Your task to perform on an android device: Open calendar and show me the fourth week of next month Image 0: 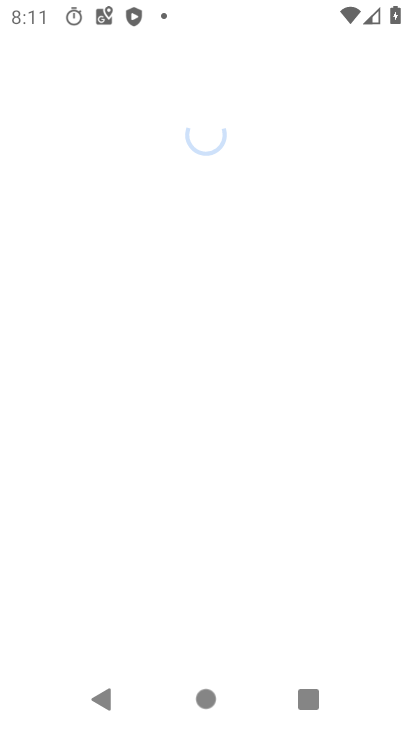
Step 0: drag from (217, 542) to (156, 205)
Your task to perform on an android device: Open calendar and show me the fourth week of next month Image 1: 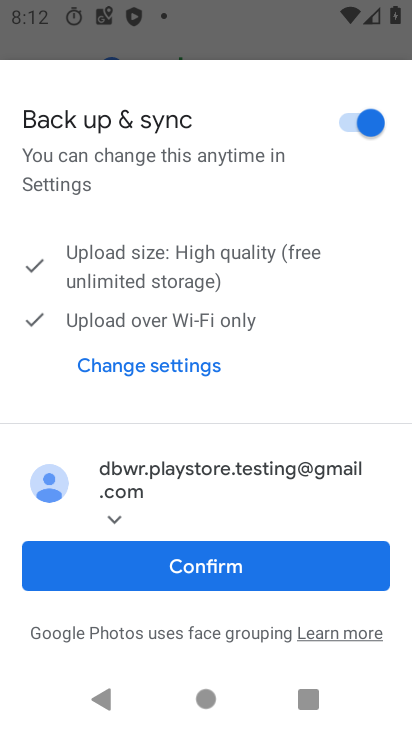
Step 1: click (236, 564)
Your task to perform on an android device: Open calendar and show me the fourth week of next month Image 2: 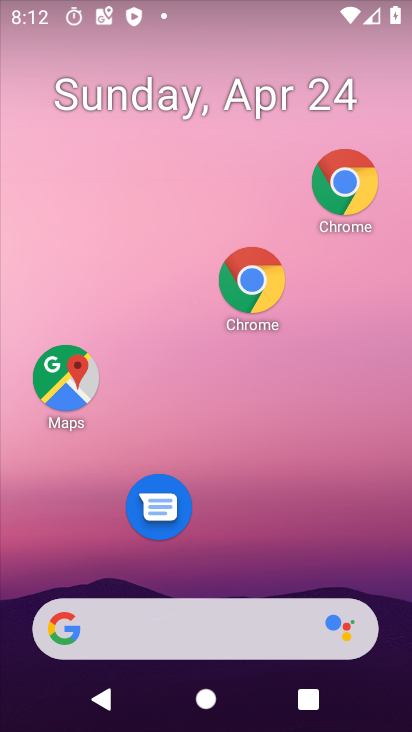
Step 2: press home button
Your task to perform on an android device: Open calendar and show me the fourth week of next month Image 3: 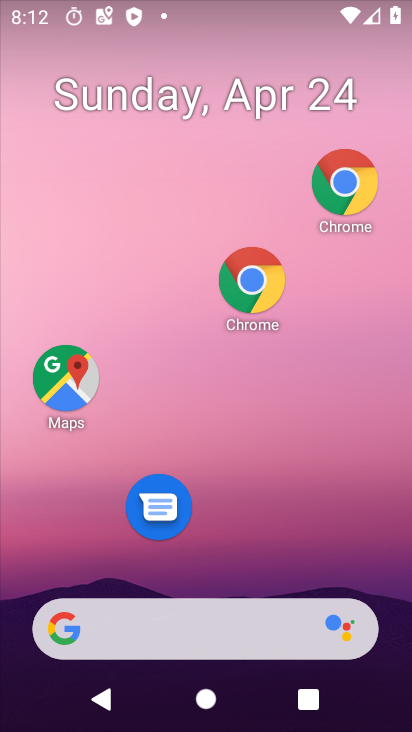
Step 3: drag from (221, 643) to (129, 19)
Your task to perform on an android device: Open calendar and show me the fourth week of next month Image 4: 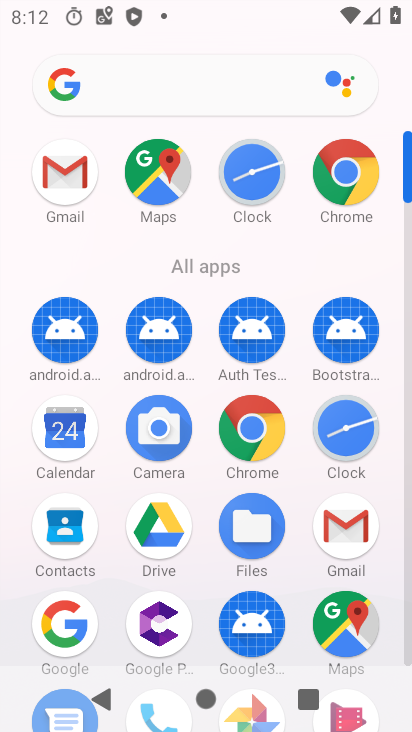
Step 4: drag from (359, 182) to (387, 447)
Your task to perform on an android device: Open calendar and show me the fourth week of next month Image 5: 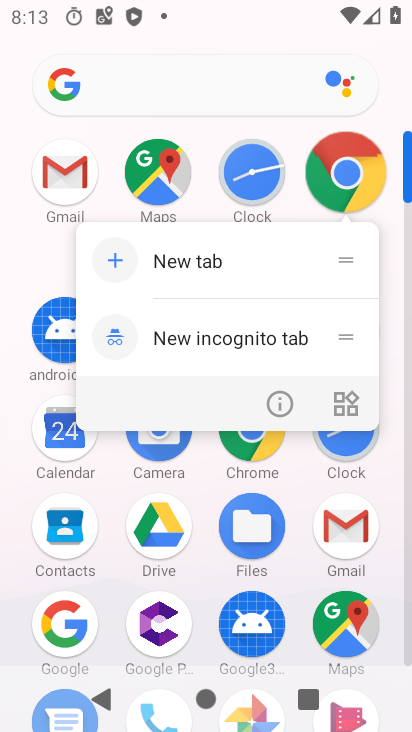
Step 5: click (387, 447)
Your task to perform on an android device: Open calendar and show me the fourth week of next month Image 6: 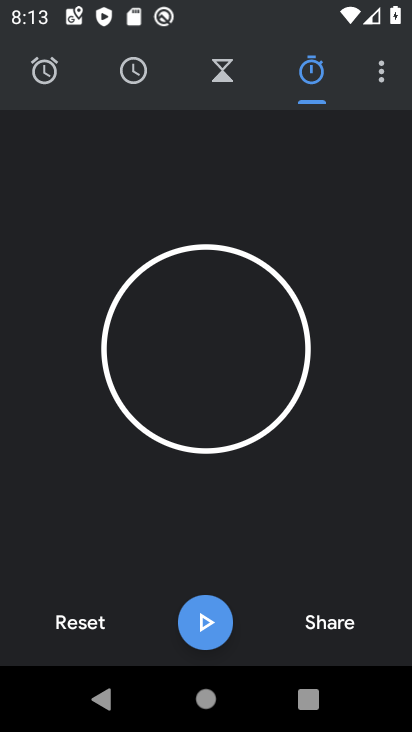
Step 6: press home button
Your task to perform on an android device: Open calendar and show me the fourth week of next month Image 7: 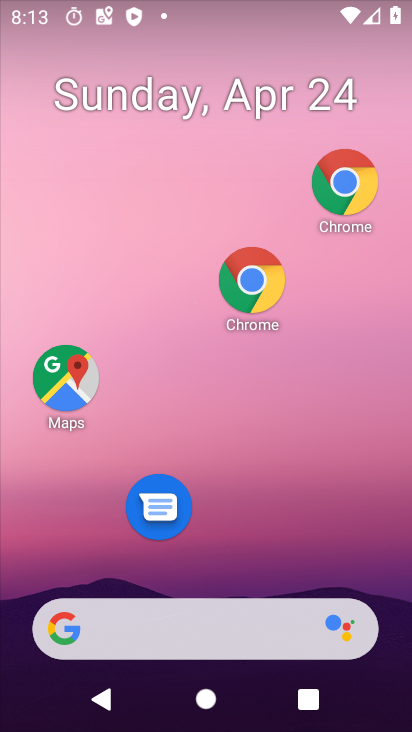
Step 7: drag from (249, 679) to (80, 144)
Your task to perform on an android device: Open calendar and show me the fourth week of next month Image 8: 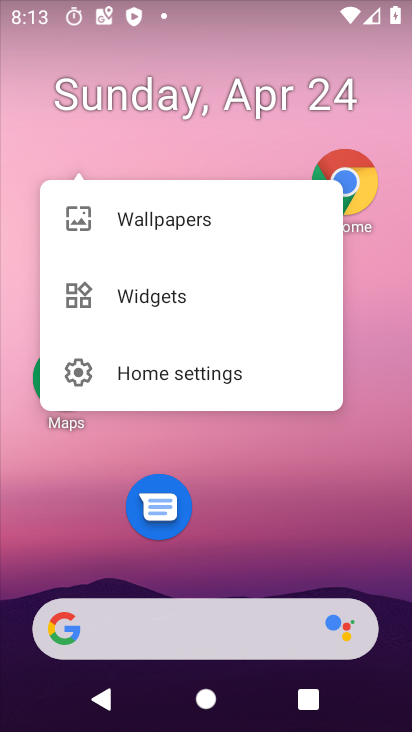
Step 8: drag from (267, 561) to (180, 2)
Your task to perform on an android device: Open calendar and show me the fourth week of next month Image 9: 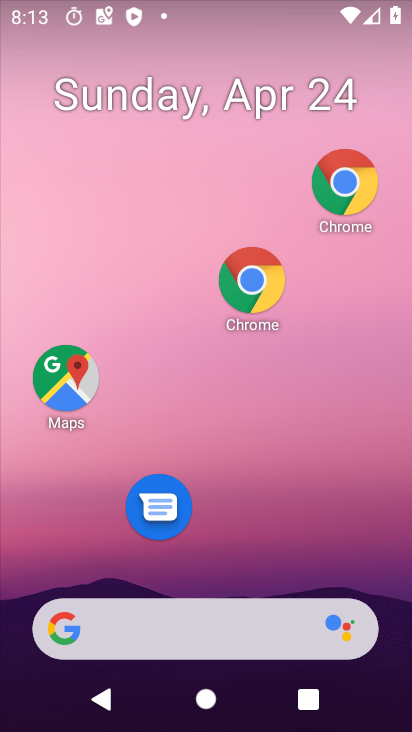
Step 9: drag from (296, 488) to (172, 44)
Your task to perform on an android device: Open calendar and show me the fourth week of next month Image 10: 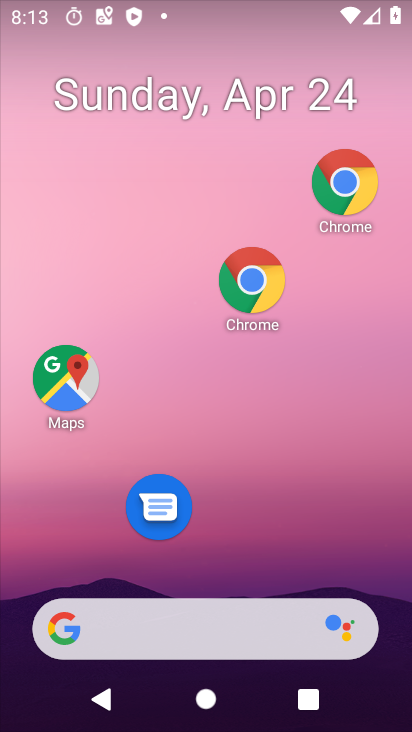
Step 10: drag from (277, 481) to (10, 153)
Your task to perform on an android device: Open calendar and show me the fourth week of next month Image 11: 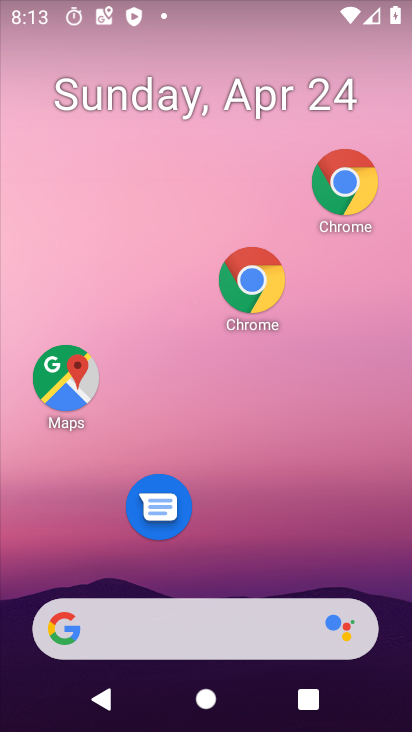
Step 11: drag from (290, 580) to (121, 122)
Your task to perform on an android device: Open calendar and show me the fourth week of next month Image 12: 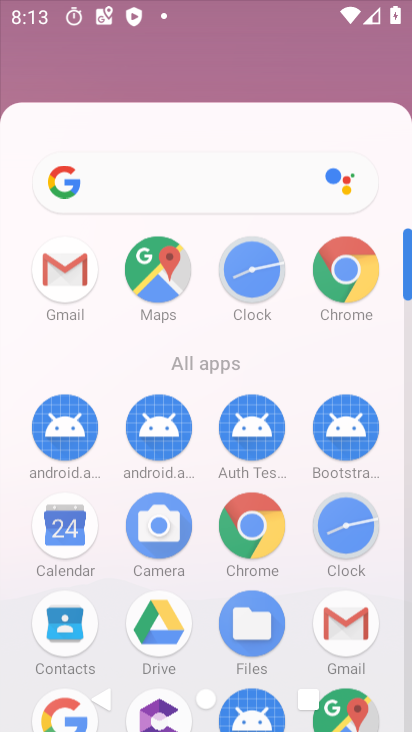
Step 12: drag from (304, 511) to (210, 152)
Your task to perform on an android device: Open calendar and show me the fourth week of next month Image 13: 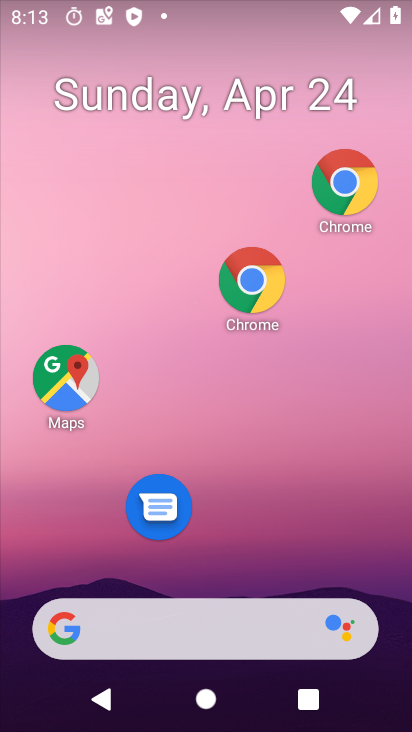
Step 13: drag from (301, 723) to (42, 156)
Your task to perform on an android device: Open calendar and show me the fourth week of next month Image 14: 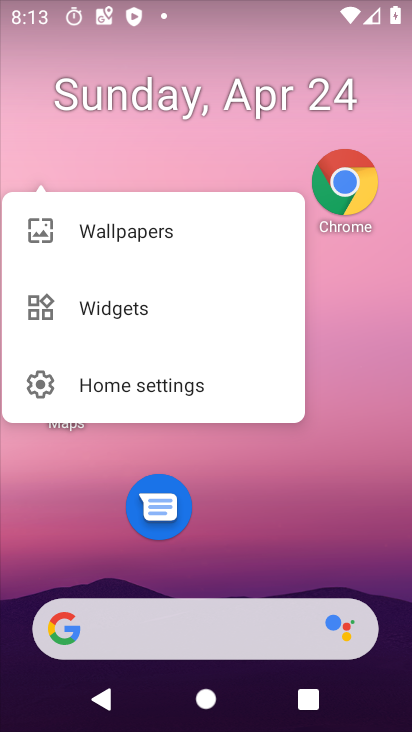
Step 14: drag from (333, 579) to (132, 17)
Your task to perform on an android device: Open calendar and show me the fourth week of next month Image 15: 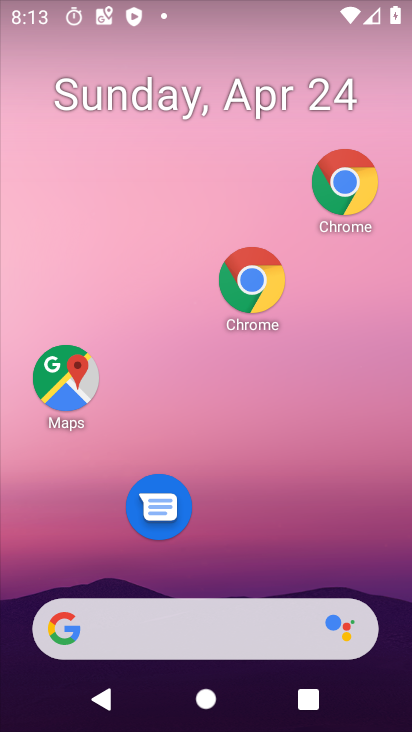
Step 15: drag from (285, 414) to (135, 52)
Your task to perform on an android device: Open calendar and show me the fourth week of next month Image 16: 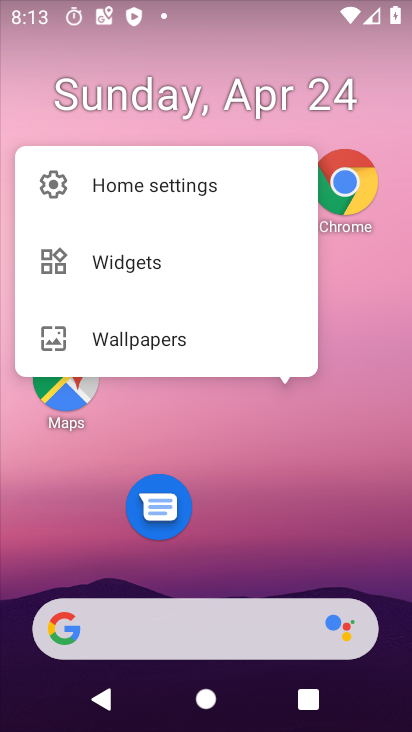
Step 16: drag from (268, 527) to (78, 17)
Your task to perform on an android device: Open calendar and show me the fourth week of next month Image 17: 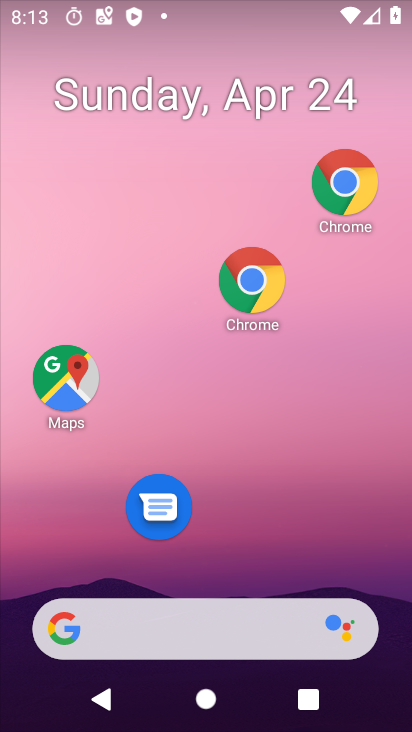
Step 17: drag from (324, 463) to (163, 51)
Your task to perform on an android device: Open calendar and show me the fourth week of next month Image 18: 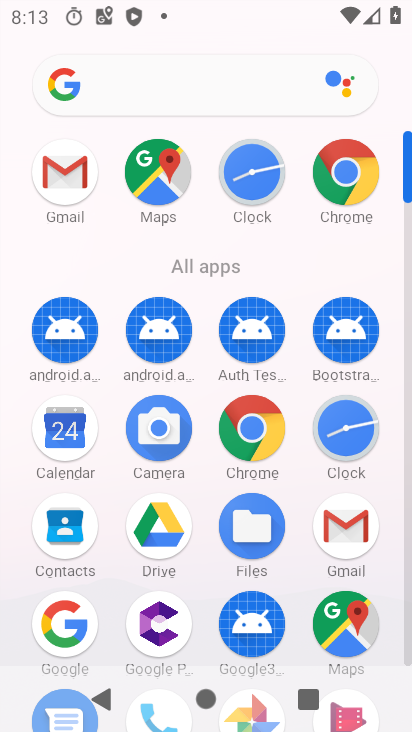
Step 18: click (62, 423)
Your task to perform on an android device: Open calendar and show me the fourth week of next month Image 19: 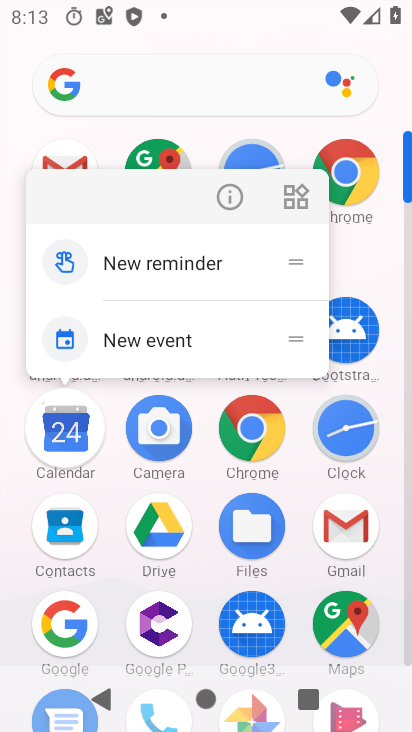
Step 19: click (73, 434)
Your task to perform on an android device: Open calendar and show me the fourth week of next month Image 20: 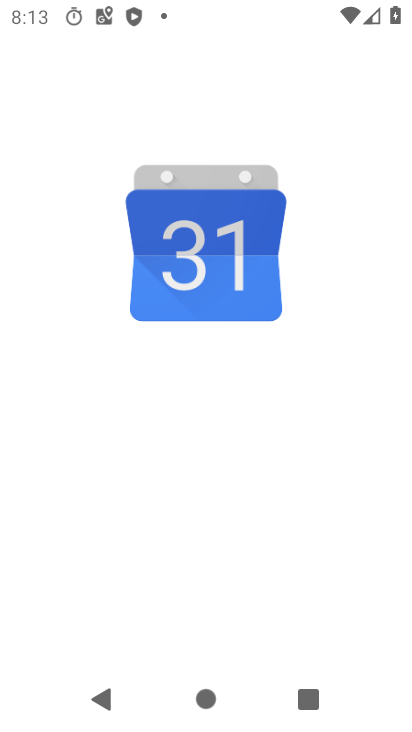
Step 20: click (74, 433)
Your task to perform on an android device: Open calendar and show me the fourth week of next month Image 21: 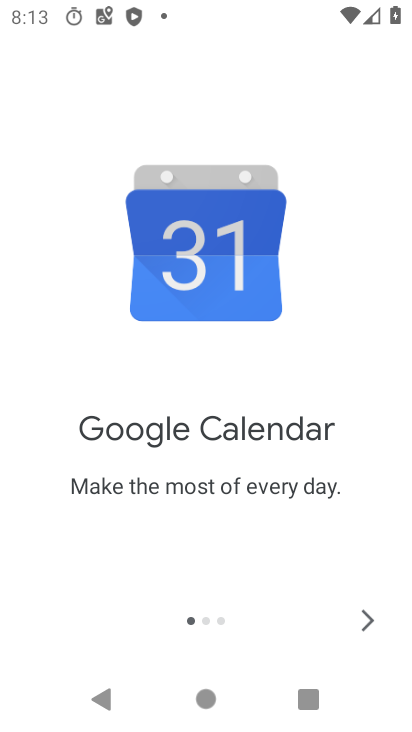
Step 21: click (351, 604)
Your task to perform on an android device: Open calendar and show me the fourth week of next month Image 22: 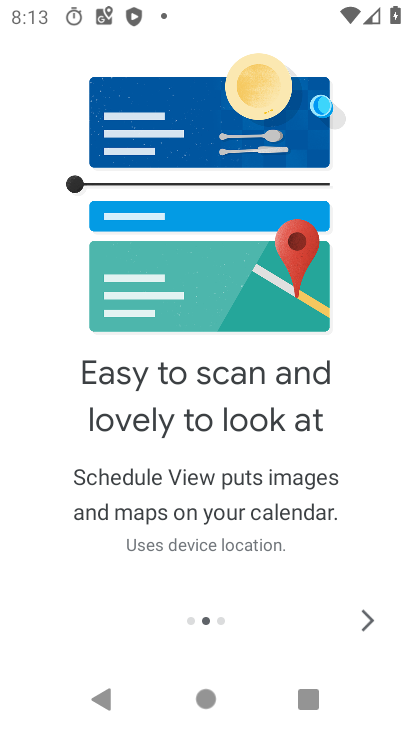
Step 22: click (367, 614)
Your task to perform on an android device: Open calendar and show me the fourth week of next month Image 23: 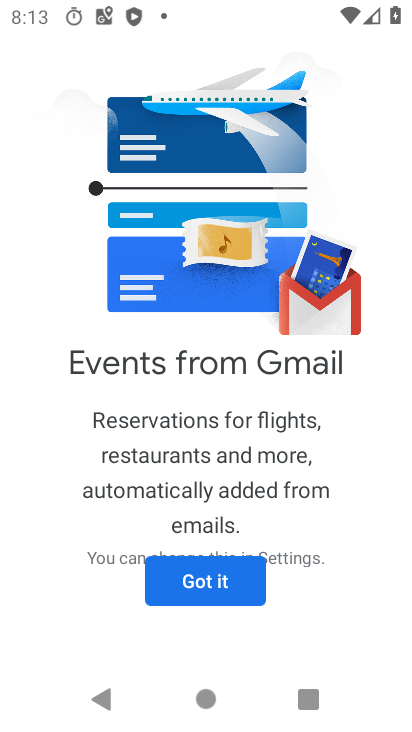
Step 23: click (195, 580)
Your task to perform on an android device: Open calendar and show me the fourth week of next month Image 24: 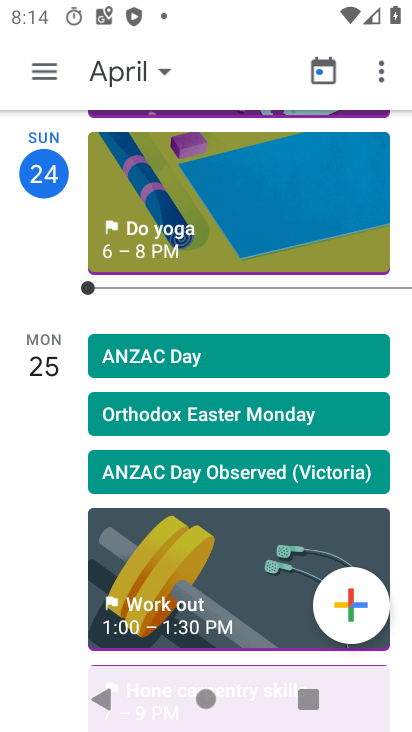
Step 24: click (49, 73)
Your task to perform on an android device: Open calendar and show me the fourth week of next month Image 25: 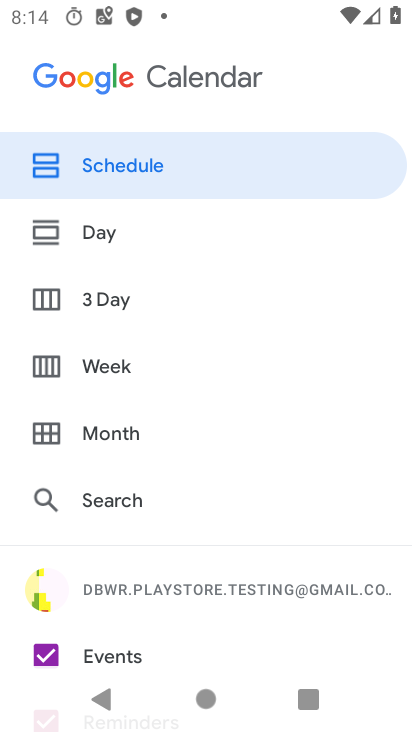
Step 25: click (161, 72)
Your task to perform on an android device: Open calendar and show me the fourth week of next month Image 26: 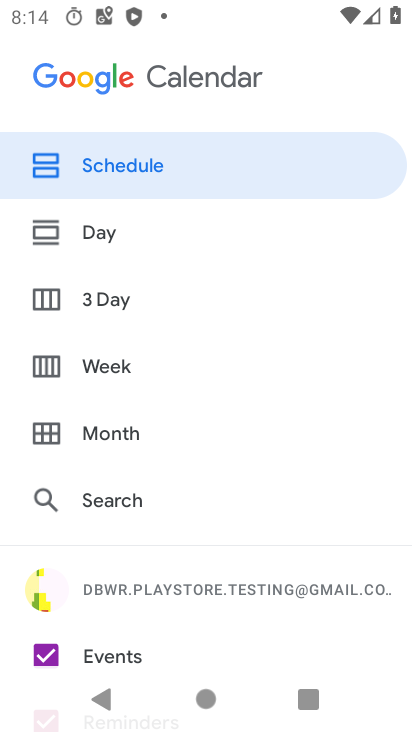
Step 26: click (380, 168)
Your task to perform on an android device: Open calendar and show me the fourth week of next month Image 27: 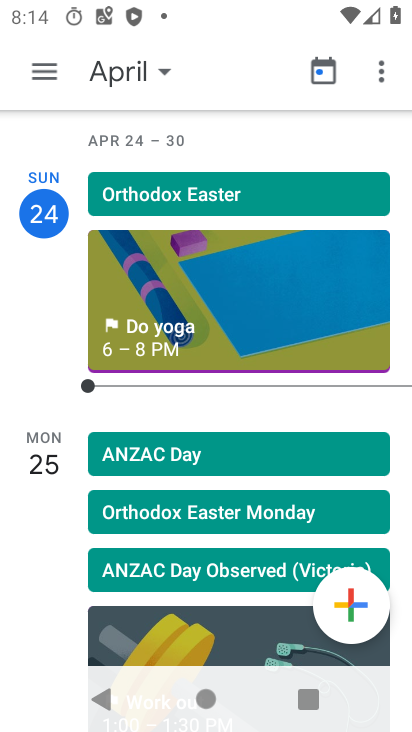
Step 27: drag from (162, 70) to (170, 147)
Your task to perform on an android device: Open calendar and show me the fourth week of next month Image 28: 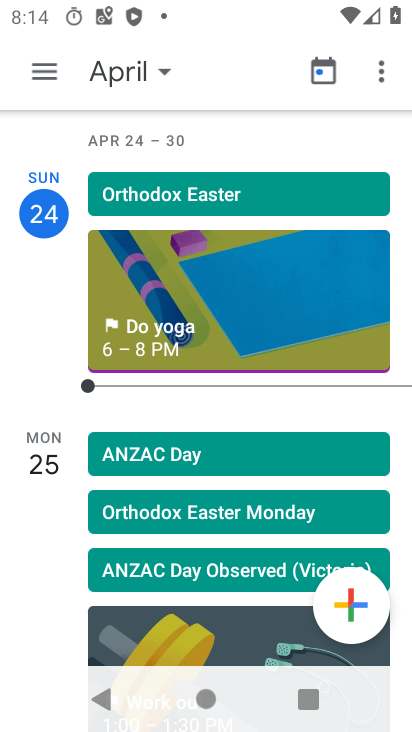
Step 28: click (170, 61)
Your task to perform on an android device: Open calendar and show me the fourth week of next month Image 29: 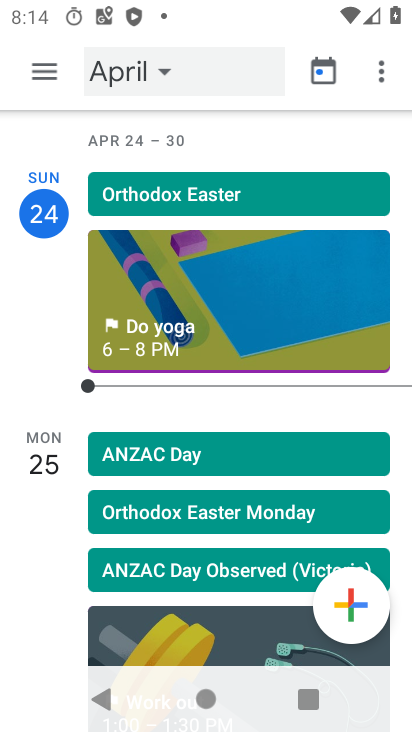
Step 29: click (131, 80)
Your task to perform on an android device: Open calendar and show me the fourth week of next month Image 30: 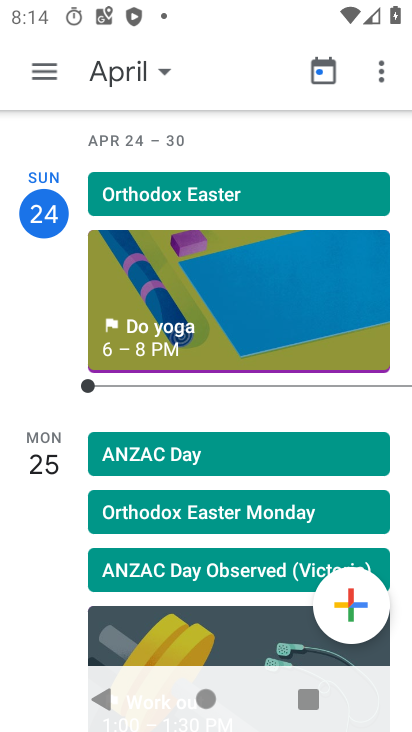
Step 30: click (161, 76)
Your task to perform on an android device: Open calendar and show me the fourth week of next month Image 31: 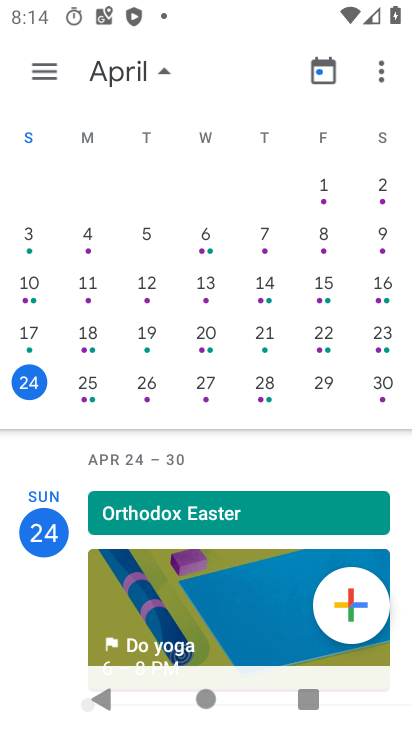
Step 31: drag from (257, 359) to (25, 313)
Your task to perform on an android device: Open calendar and show me the fourth week of next month Image 32: 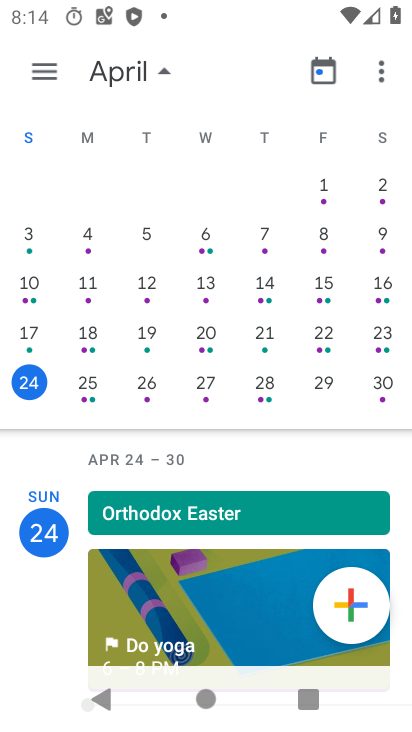
Step 32: drag from (241, 314) to (9, 253)
Your task to perform on an android device: Open calendar and show me the fourth week of next month Image 33: 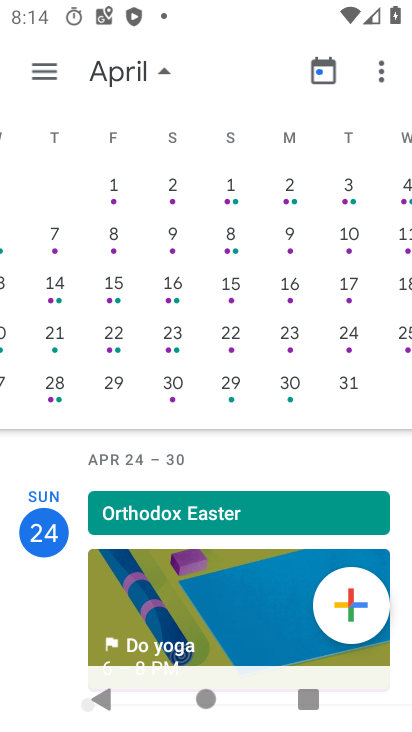
Step 33: drag from (276, 342) to (47, 296)
Your task to perform on an android device: Open calendar and show me the fourth week of next month Image 34: 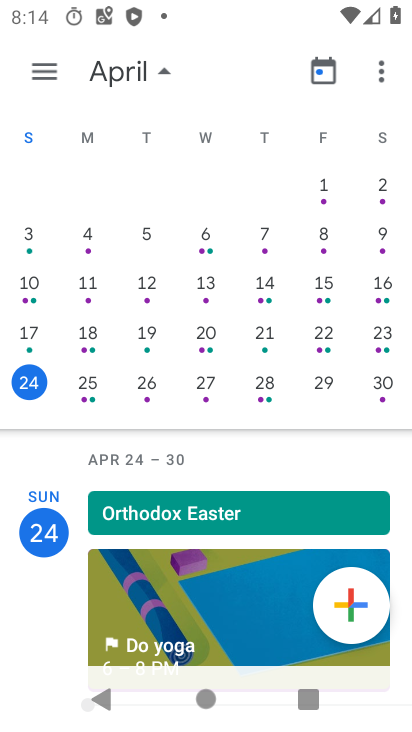
Step 34: drag from (195, 317) to (3, 269)
Your task to perform on an android device: Open calendar and show me the fourth week of next month Image 35: 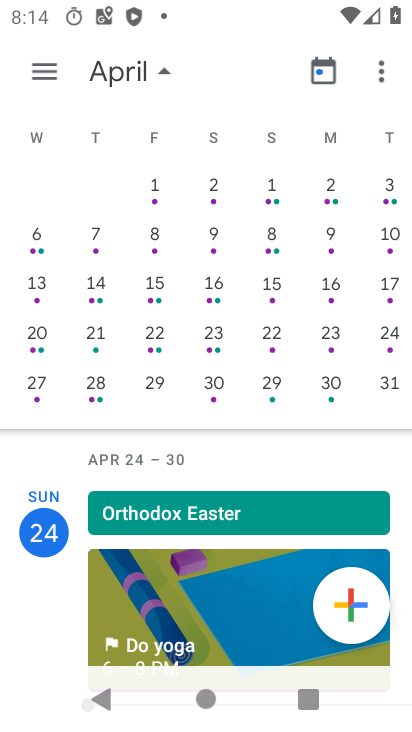
Step 35: drag from (235, 356) to (32, 369)
Your task to perform on an android device: Open calendar and show me the fourth week of next month Image 36: 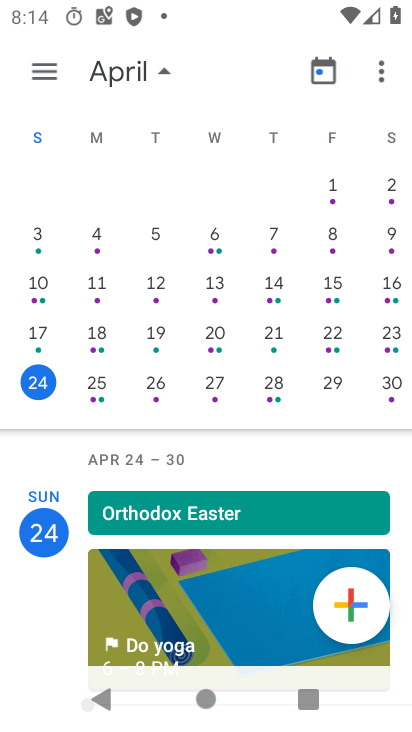
Step 36: drag from (250, 351) to (2, 274)
Your task to perform on an android device: Open calendar and show me the fourth week of next month Image 37: 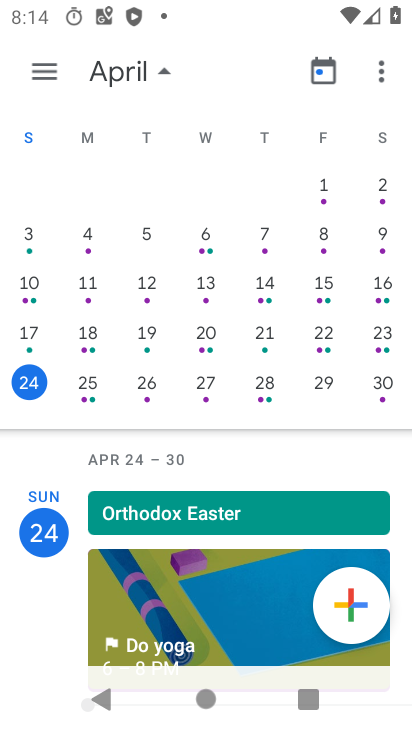
Step 37: drag from (223, 332) to (6, 315)
Your task to perform on an android device: Open calendar and show me the fourth week of next month Image 38: 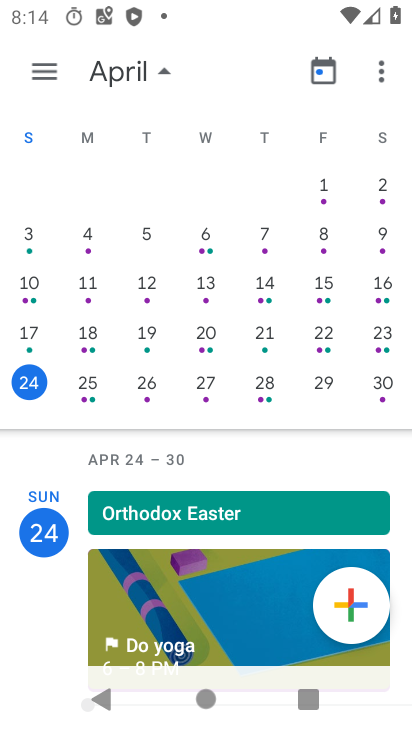
Step 38: drag from (194, 326) to (7, 367)
Your task to perform on an android device: Open calendar and show me the fourth week of next month Image 39: 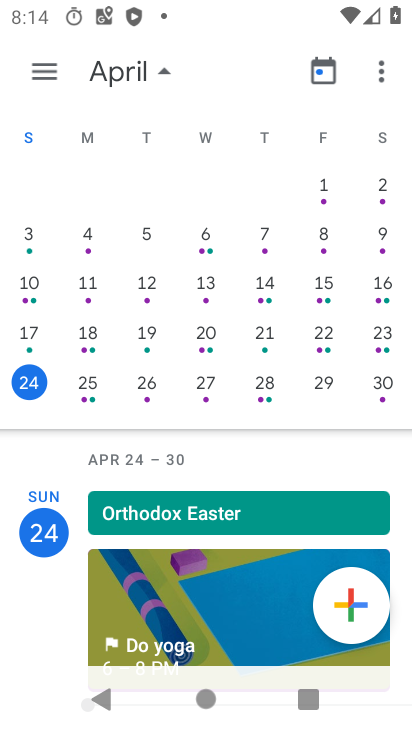
Step 39: drag from (169, 354) to (2, 426)
Your task to perform on an android device: Open calendar and show me the fourth week of next month Image 40: 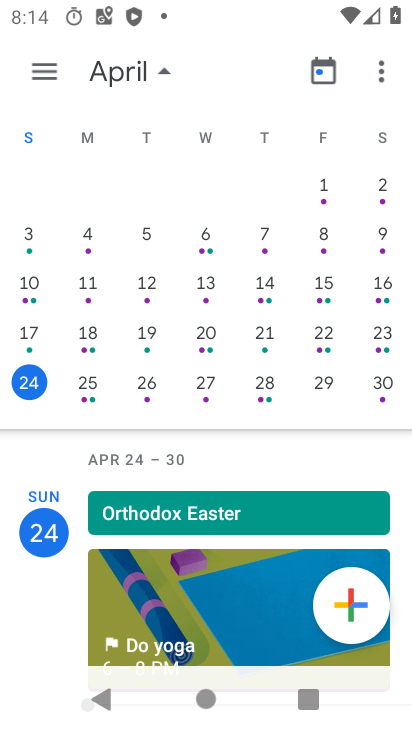
Step 40: drag from (245, 342) to (9, 261)
Your task to perform on an android device: Open calendar and show me the fourth week of next month Image 41: 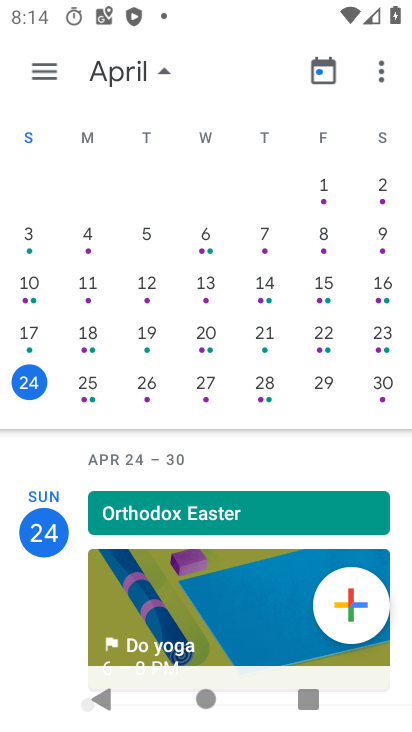
Step 41: drag from (224, 325) to (72, 297)
Your task to perform on an android device: Open calendar and show me the fourth week of next month Image 42: 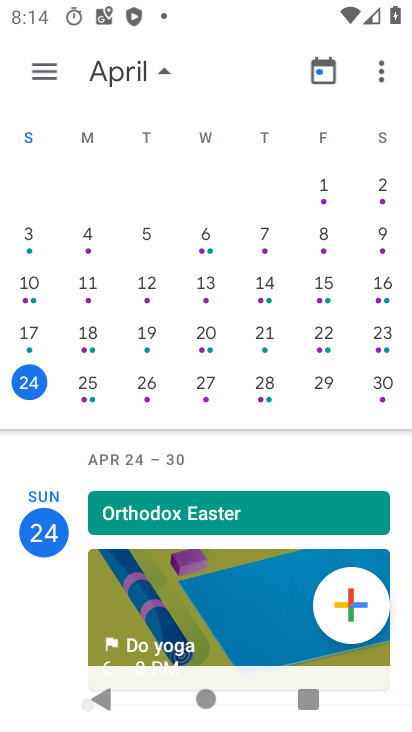
Step 42: drag from (335, 341) to (9, 380)
Your task to perform on an android device: Open calendar and show me the fourth week of next month Image 43: 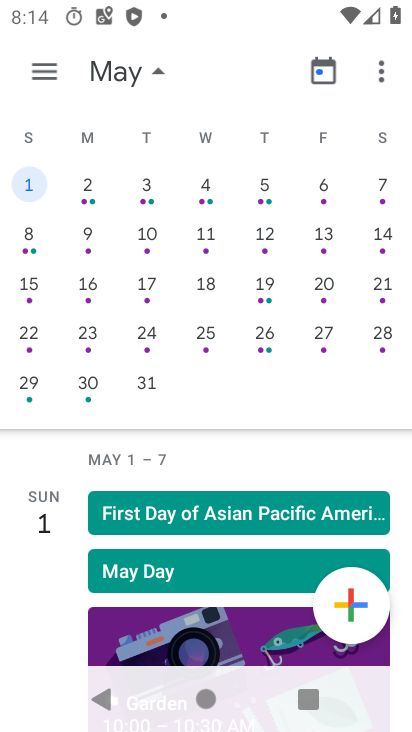
Step 43: click (28, 325)
Your task to perform on an android device: Open calendar and show me the fourth week of next month Image 44: 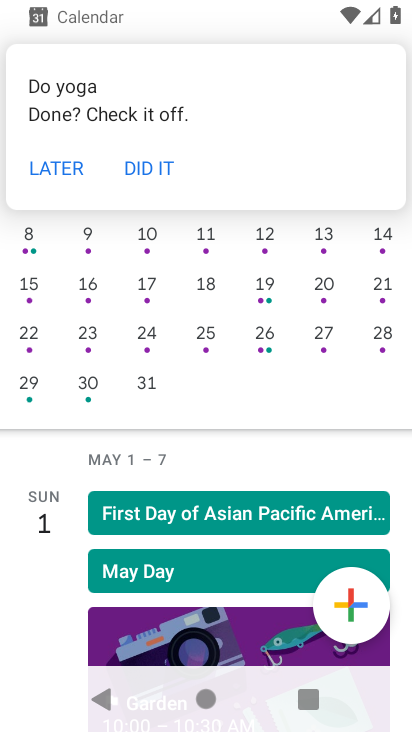
Step 44: click (33, 326)
Your task to perform on an android device: Open calendar and show me the fourth week of next month Image 45: 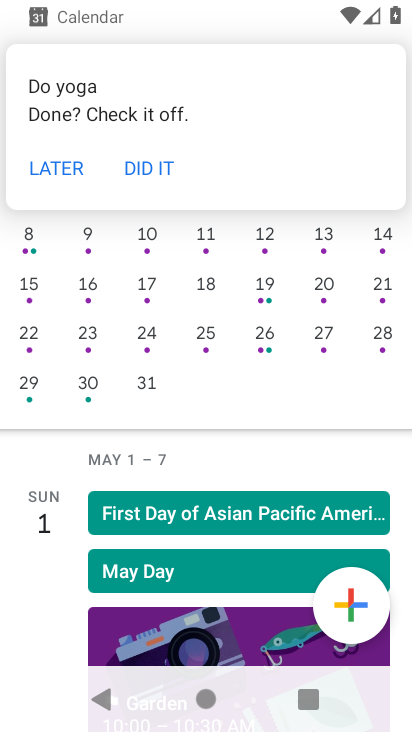
Step 45: click (35, 325)
Your task to perform on an android device: Open calendar and show me the fourth week of next month Image 46: 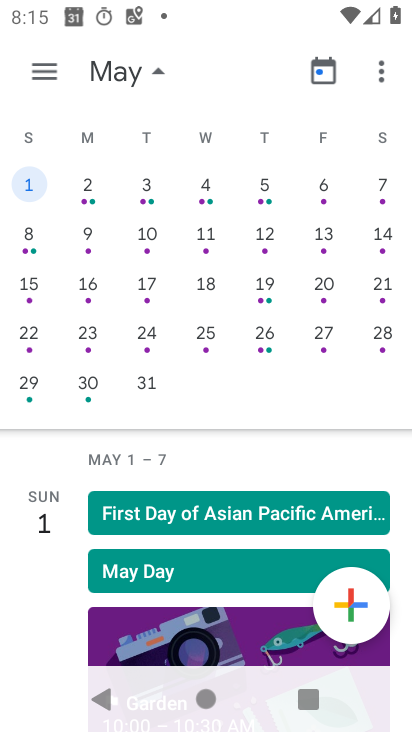
Step 46: click (26, 331)
Your task to perform on an android device: Open calendar and show me the fourth week of next month Image 47: 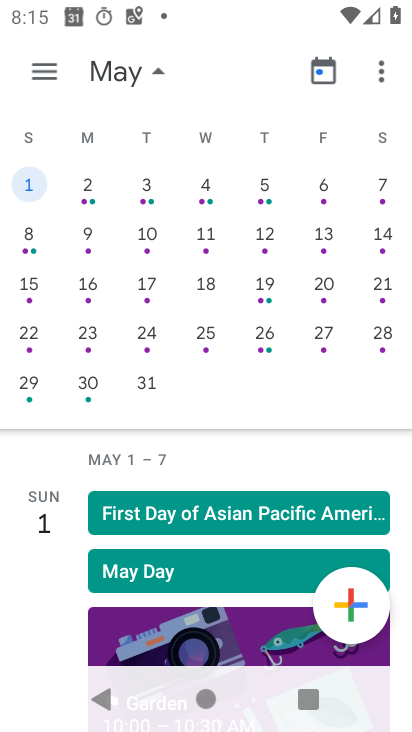
Step 47: click (26, 331)
Your task to perform on an android device: Open calendar and show me the fourth week of next month Image 48: 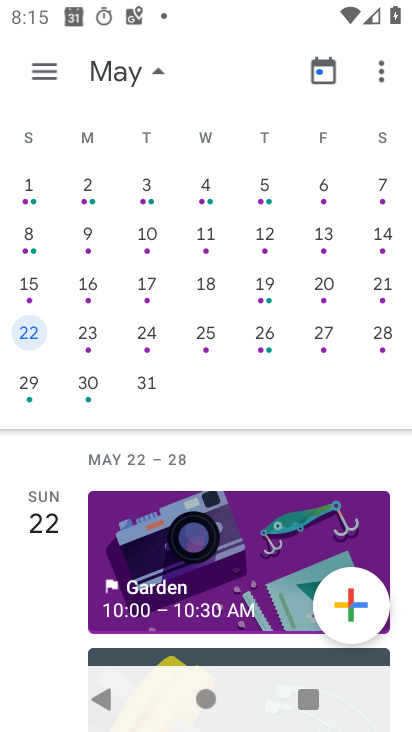
Step 48: task complete